Your task to perform on an android device: set the stopwatch Image 0: 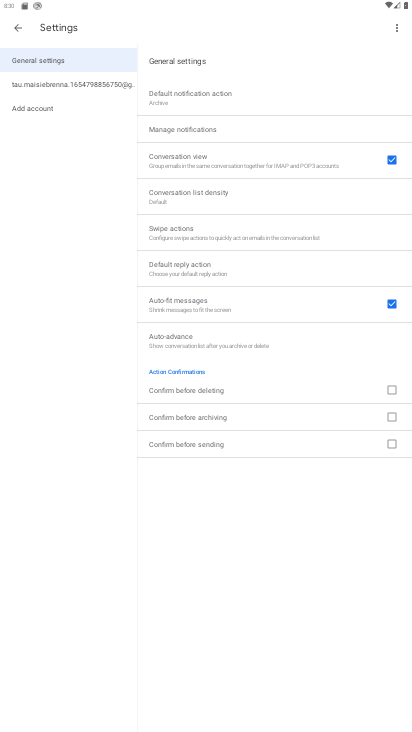
Step 0: press home button
Your task to perform on an android device: set the stopwatch Image 1: 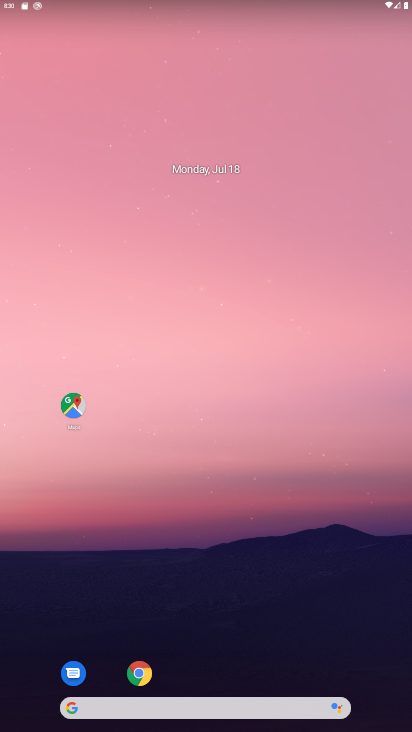
Step 1: drag from (202, 615) to (202, 250)
Your task to perform on an android device: set the stopwatch Image 2: 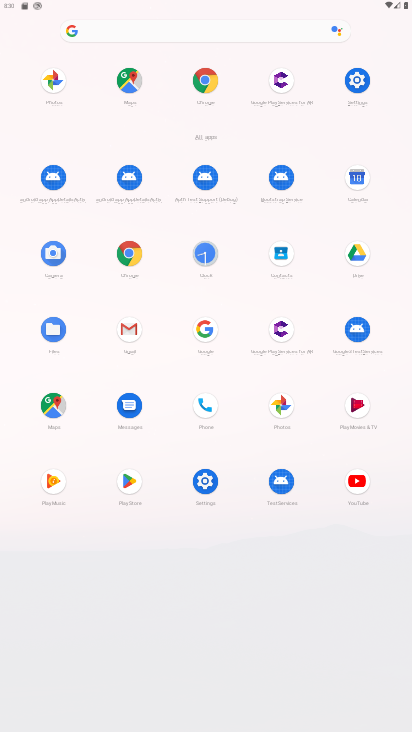
Step 2: click (200, 251)
Your task to perform on an android device: set the stopwatch Image 3: 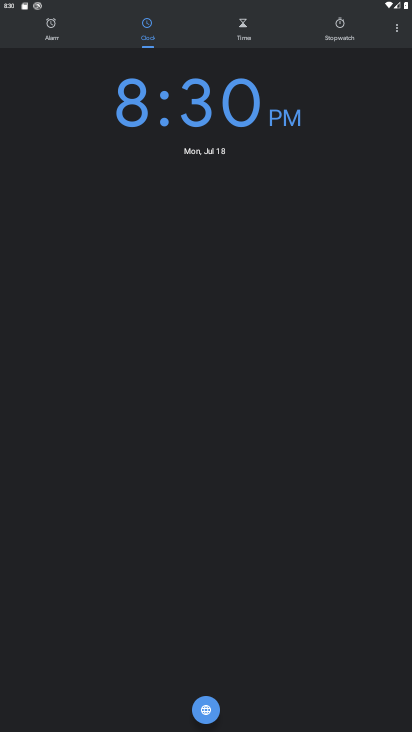
Step 3: click (351, 26)
Your task to perform on an android device: set the stopwatch Image 4: 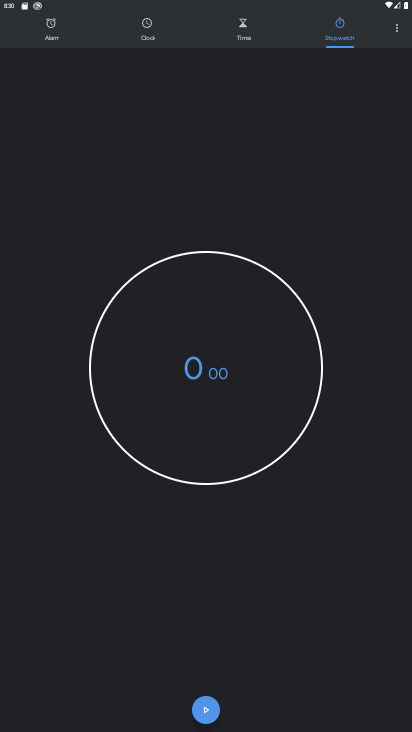
Step 4: click (208, 718)
Your task to perform on an android device: set the stopwatch Image 5: 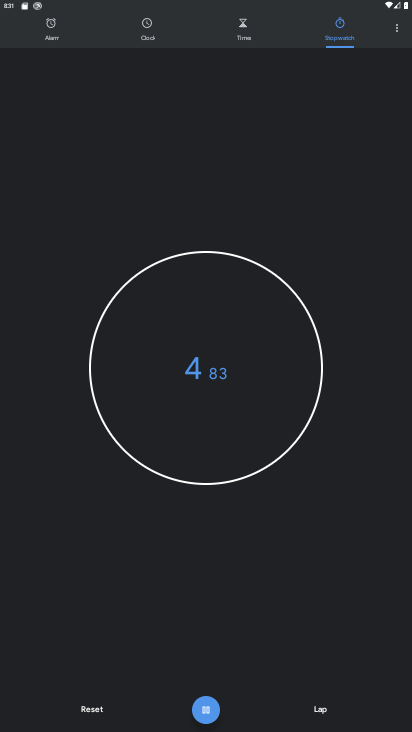
Step 5: click (205, 705)
Your task to perform on an android device: set the stopwatch Image 6: 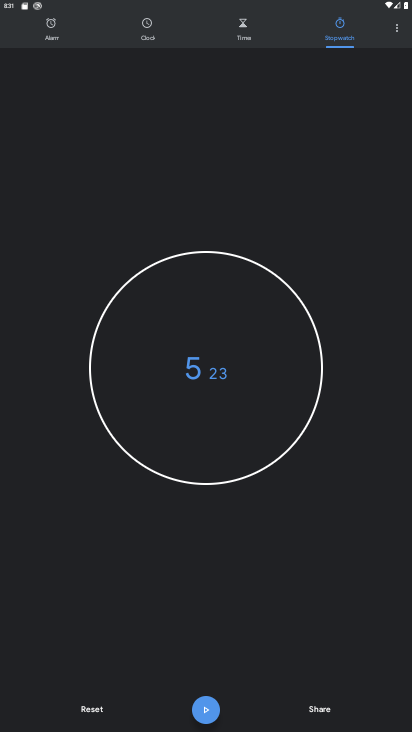
Step 6: task complete